Your task to perform on an android device: Open Yahoo.com Image 0: 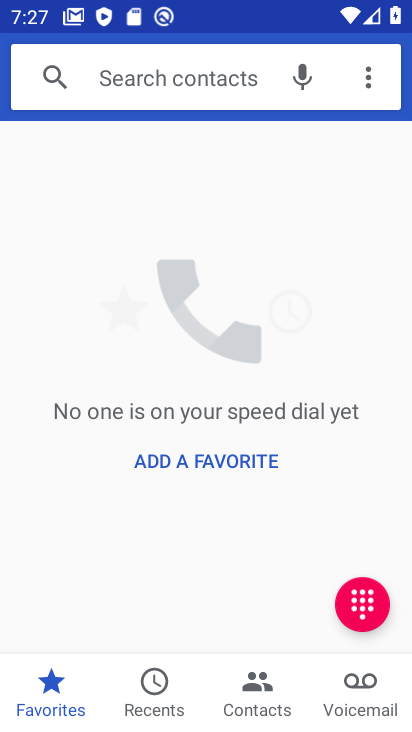
Step 0: press home button
Your task to perform on an android device: Open Yahoo.com Image 1: 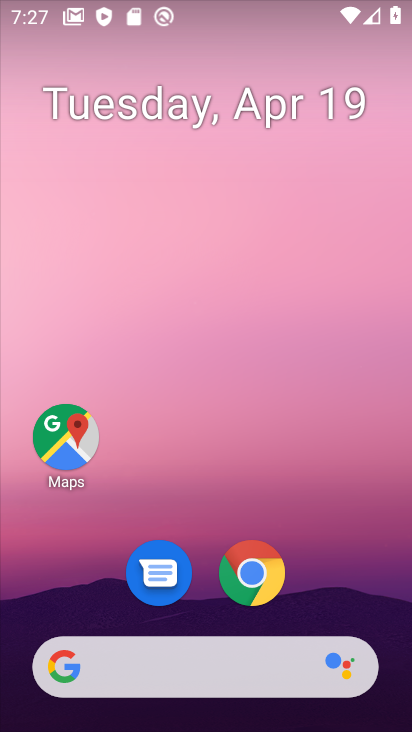
Step 1: click (256, 550)
Your task to perform on an android device: Open Yahoo.com Image 2: 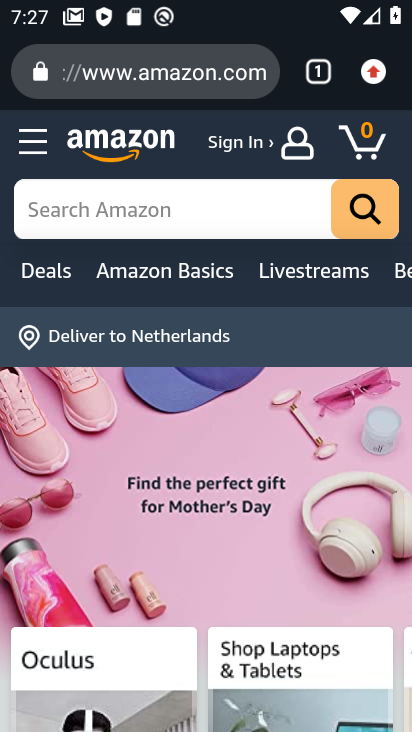
Step 2: click (366, 68)
Your task to perform on an android device: Open Yahoo.com Image 3: 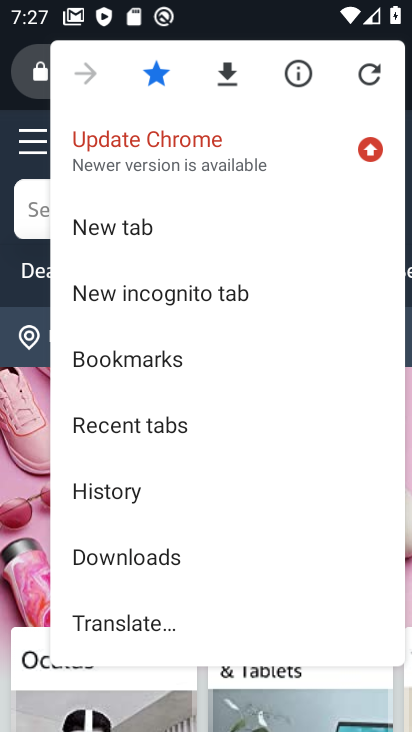
Step 3: click (113, 224)
Your task to perform on an android device: Open Yahoo.com Image 4: 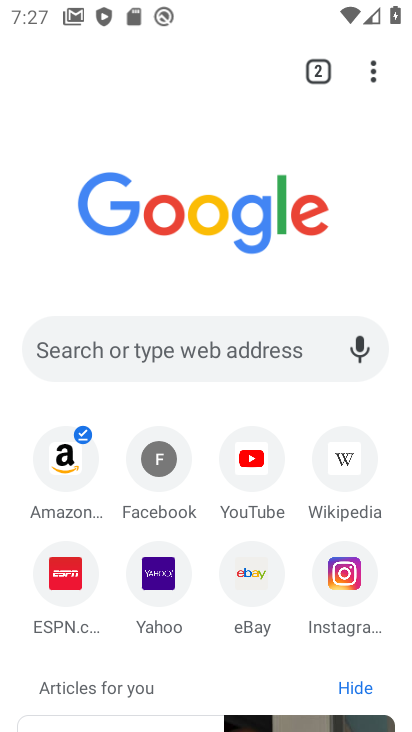
Step 4: click (136, 346)
Your task to perform on an android device: Open Yahoo.com Image 5: 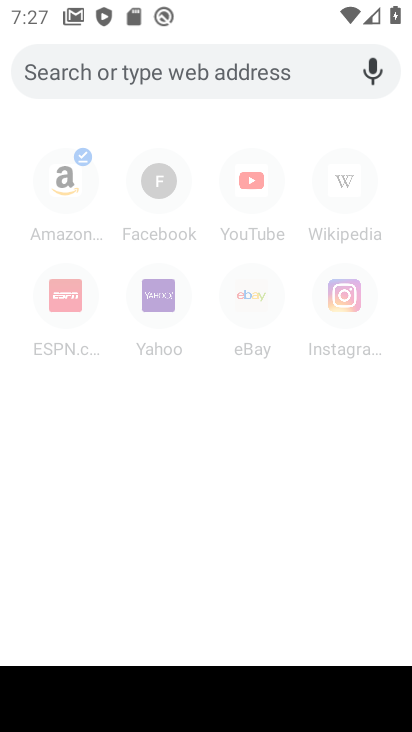
Step 5: type "Yahoo.com"
Your task to perform on an android device: Open Yahoo.com Image 6: 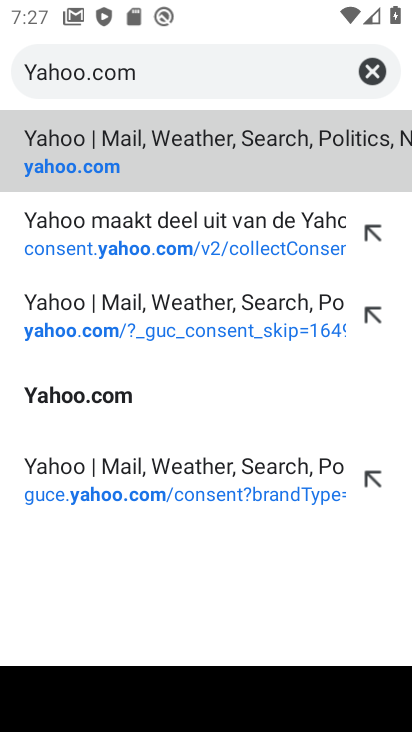
Step 6: click (72, 164)
Your task to perform on an android device: Open Yahoo.com Image 7: 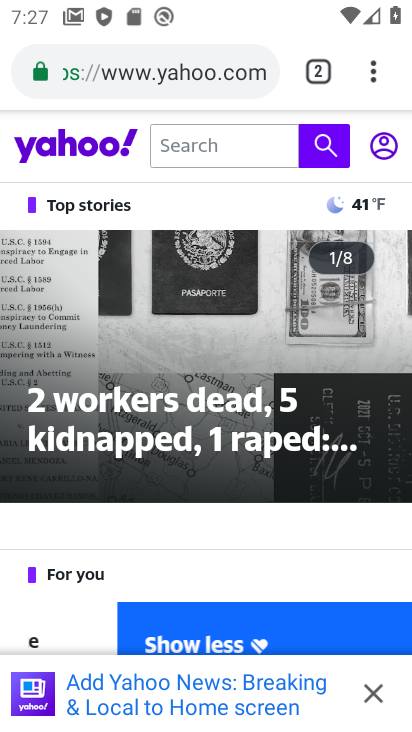
Step 7: task complete